Your task to perform on an android device: Search for sushi restaurants on Maps Image 0: 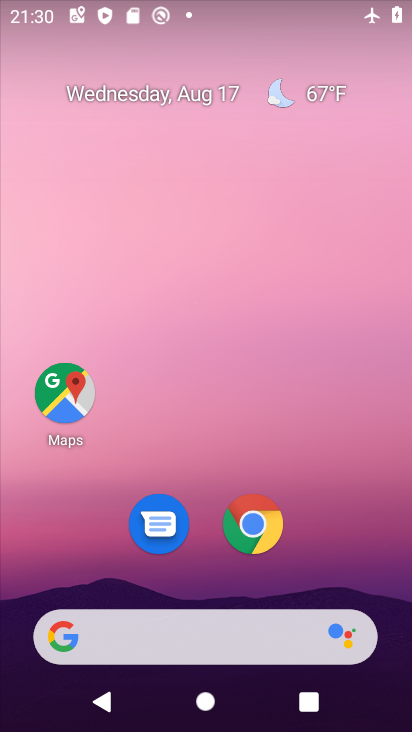
Step 0: click (68, 391)
Your task to perform on an android device: Search for sushi restaurants on Maps Image 1: 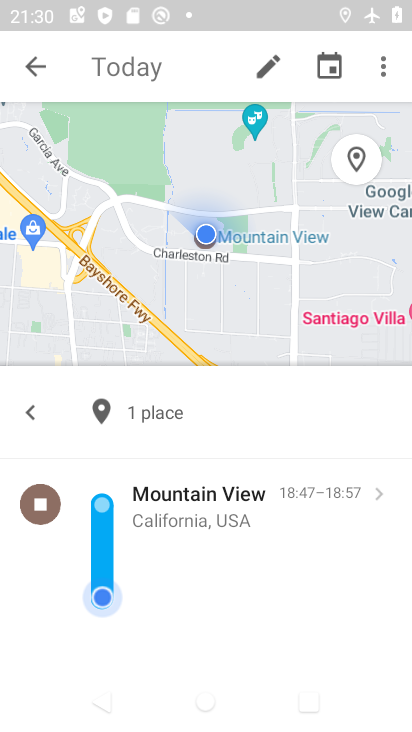
Step 1: click (33, 66)
Your task to perform on an android device: Search for sushi restaurants on Maps Image 2: 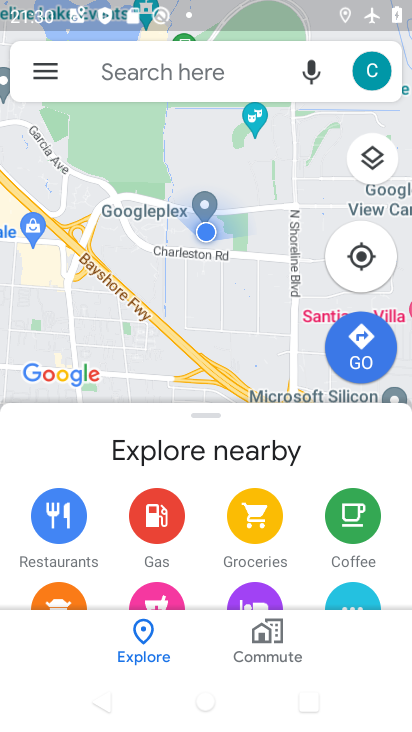
Step 2: click (152, 71)
Your task to perform on an android device: Search for sushi restaurants on Maps Image 3: 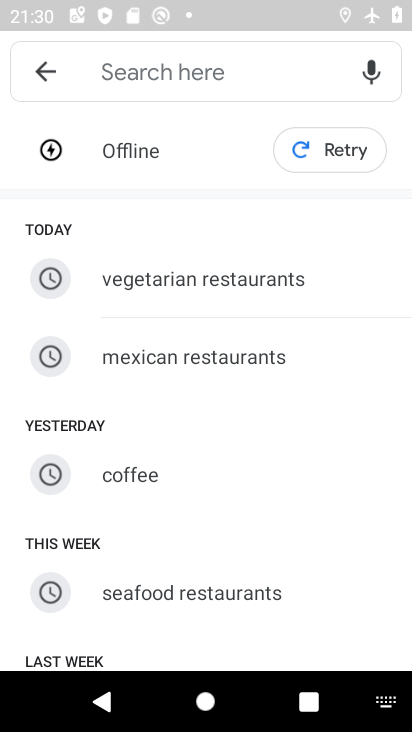
Step 3: drag from (205, 478) to (251, 467)
Your task to perform on an android device: Search for sushi restaurants on Maps Image 4: 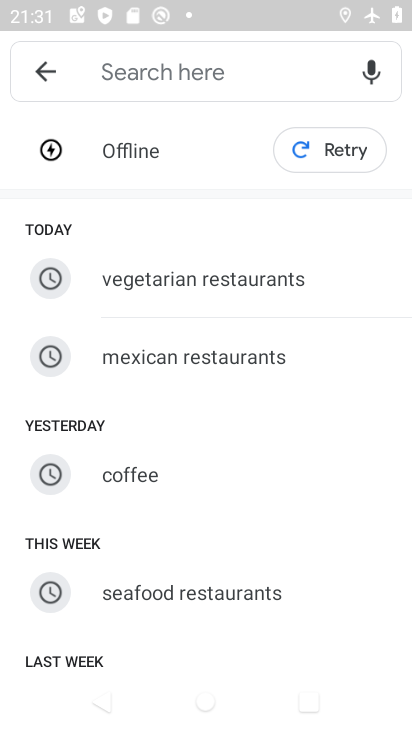
Step 4: click (131, 148)
Your task to perform on an android device: Search for sushi restaurants on Maps Image 5: 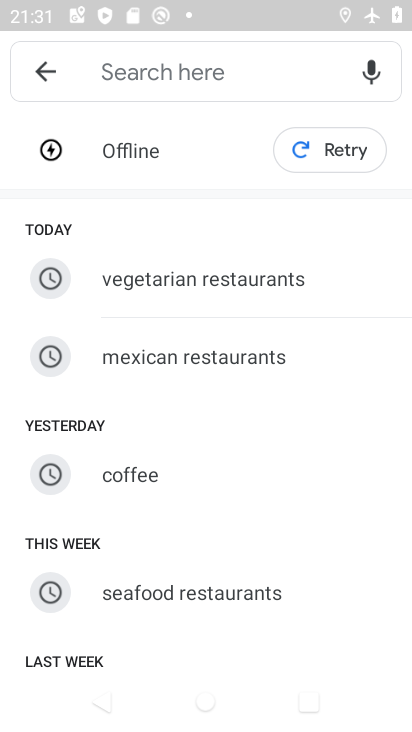
Step 5: click (165, 74)
Your task to perform on an android device: Search for sushi restaurants on Maps Image 6: 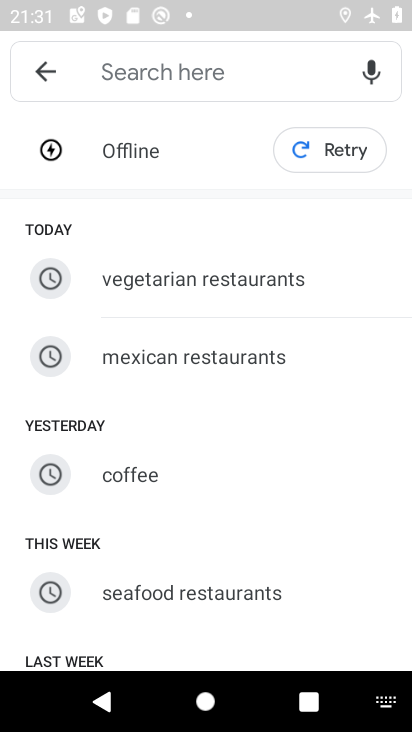
Step 6: type "sushi restaurants"
Your task to perform on an android device: Search for sushi restaurants on Maps Image 7: 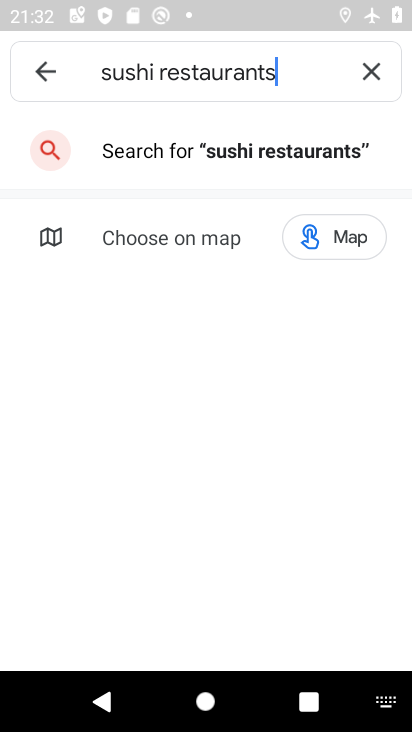
Step 7: click (330, 154)
Your task to perform on an android device: Search for sushi restaurants on Maps Image 8: 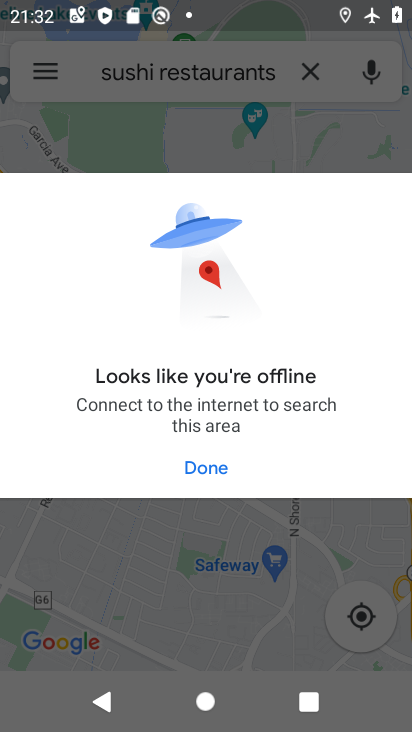
Step 8: task complete